Your task to perform on an android device: Open Youtube and go to the subscriptions tab Image 0: 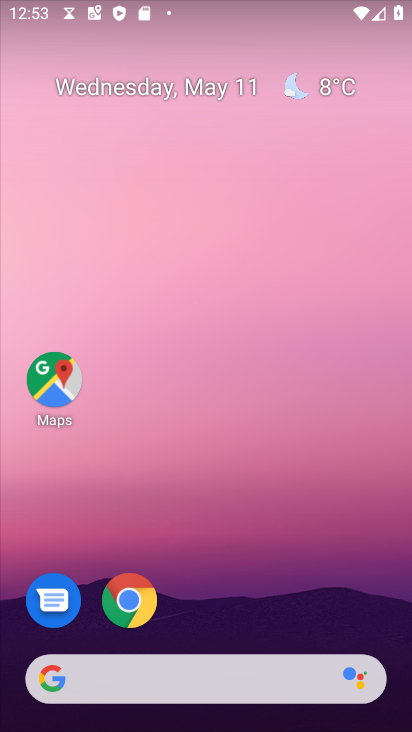
Step 0: drag from (223, 578) to (191, 112)
Your task to perform on an android device: Open Youtube and go to the subscriptions tab Image 1: 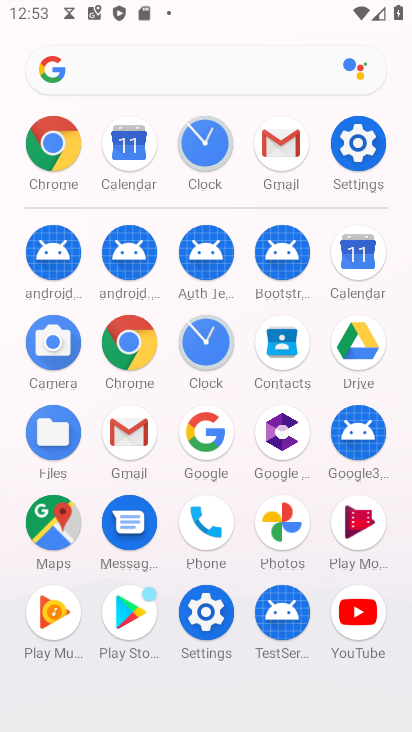
Step 1: click (358, 611)
Your task to perform on an android device: Open Youtube and go to the subscriptions tab Image 2: 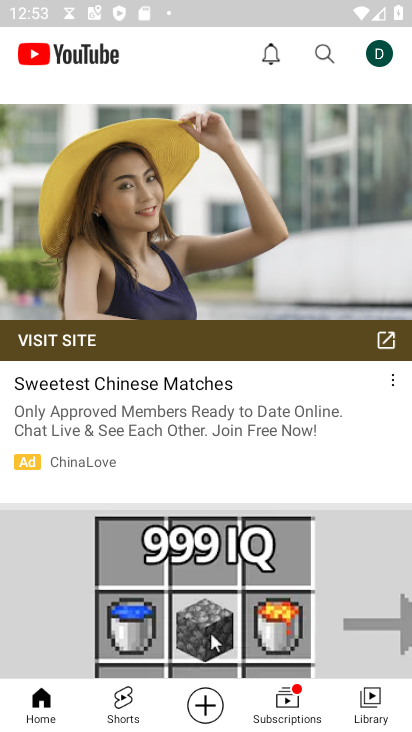
Step 2: click (287, 697)
Your task to perform on an android device: Open Youtube and go to the subscriptions tab Image 3: 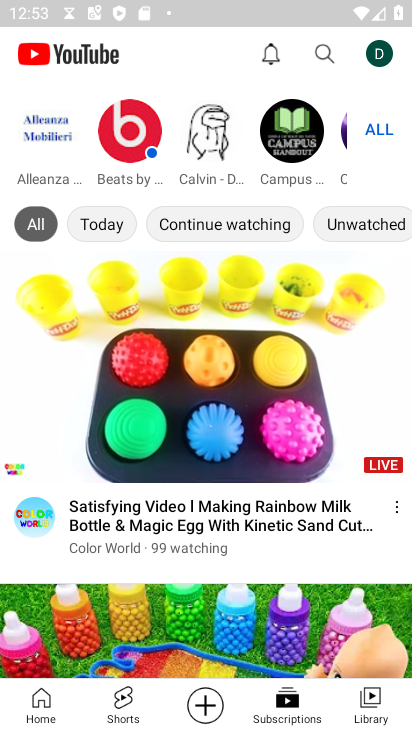
Step 3: task complete